Your task to perform on an android device: all mails in gmail Image 0: 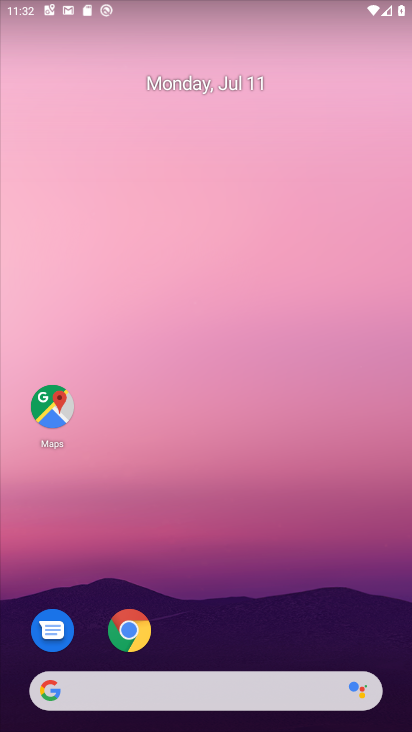
Step 0: drag from (254, 636) to (228, 62)
Your task to perform on an android device: all mails in gmail Image 1: 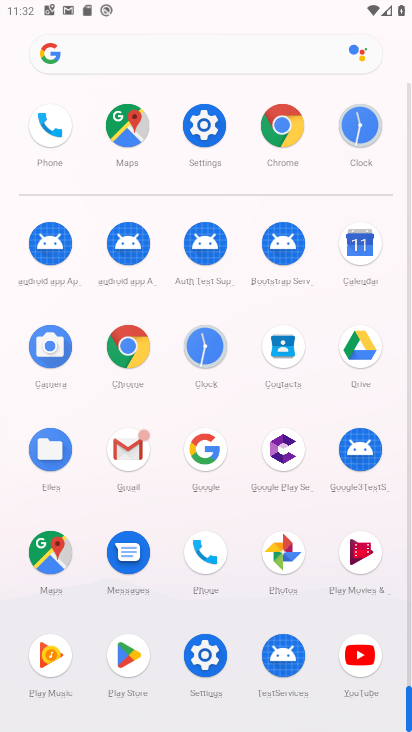
Step 1: click (132, 461)
Your task to perform on an android device: all mails in gmail Image 2: 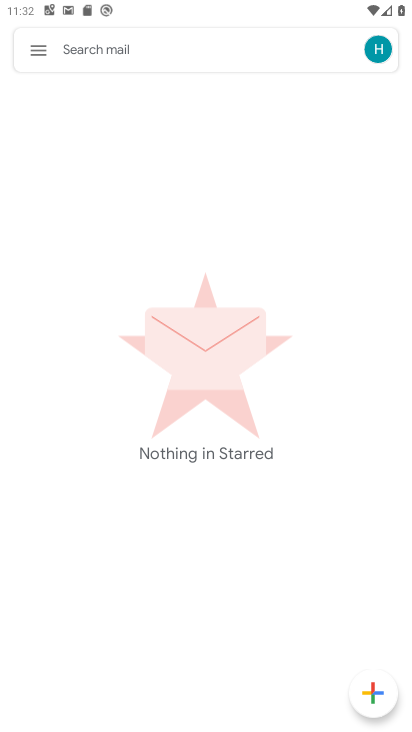
Step 2: click (45, 58)
Your task to perform on an android device: all mails in gmail Image 3: 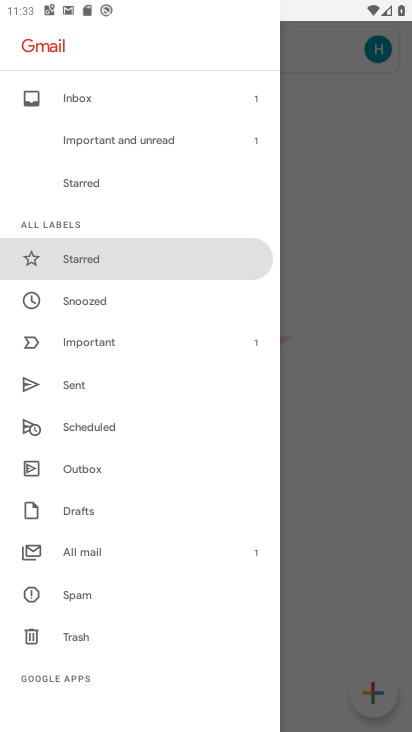
Step 3: click (88, 549)
Your task to perform on an android device: all mails in gmail Image 4: 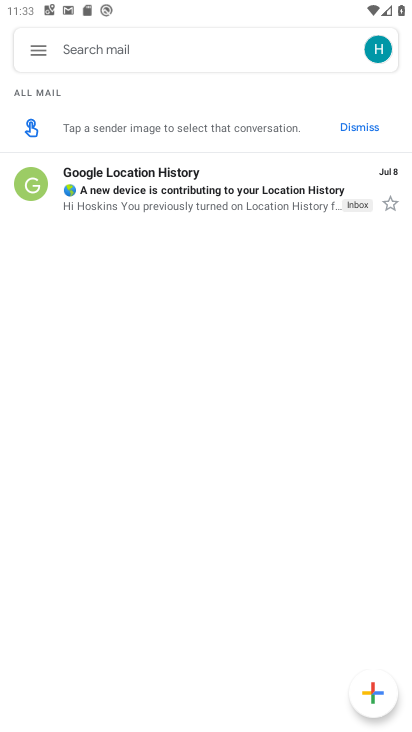
Step 4: task complete